Your task to perform on an android device: turn off location Image 0: 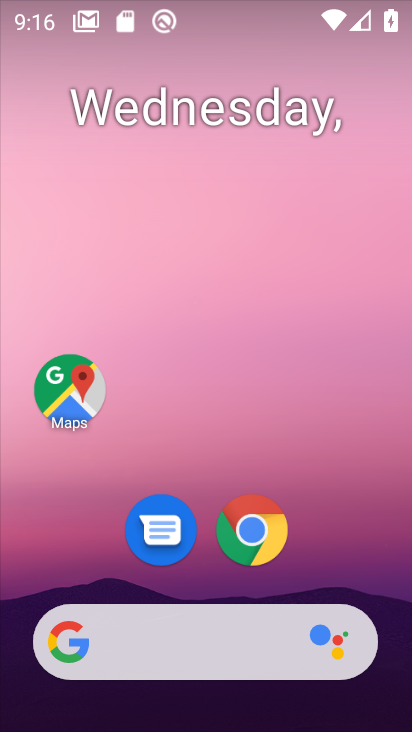
Step 0: drag from (393, 639) to (260, 67)
Your task to perform on an android device: turn off location Image 1: 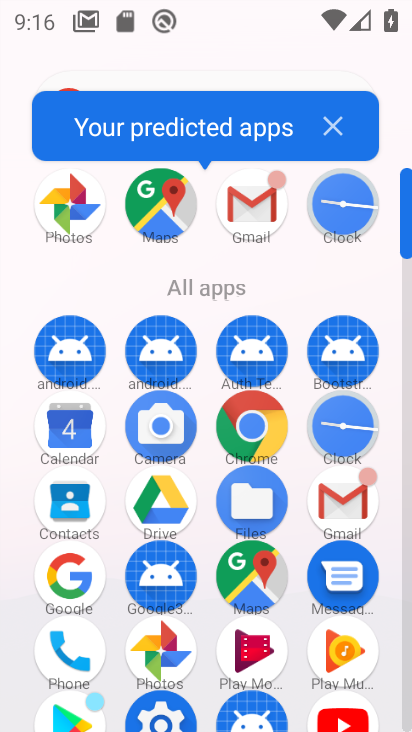
Step 1: click (406, 722)
Your task to perform on an android device: turn off location Image 2: 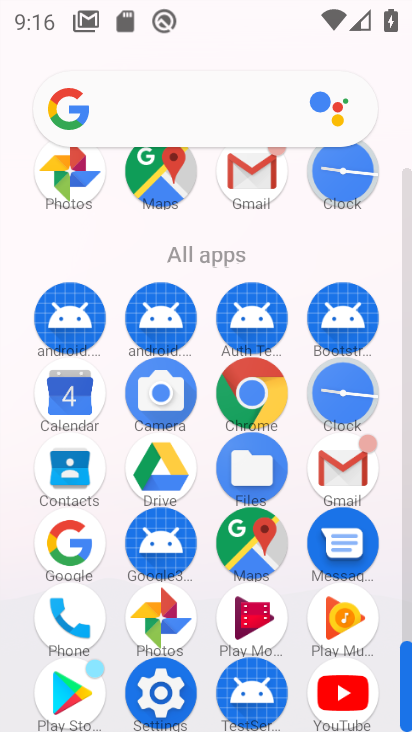
Step 2: click (163, 696)
Your task to perform on an android device: turn off location Image 3: 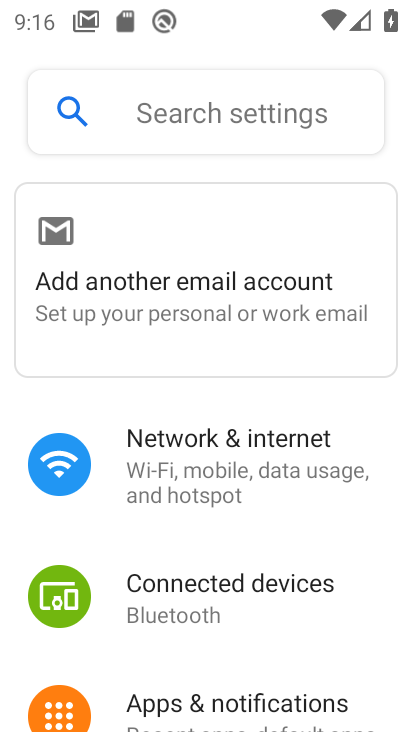
Step 3: drag from (206, 639) to (223, 193)
Your task to perform on an android device: turn off location Image 4: 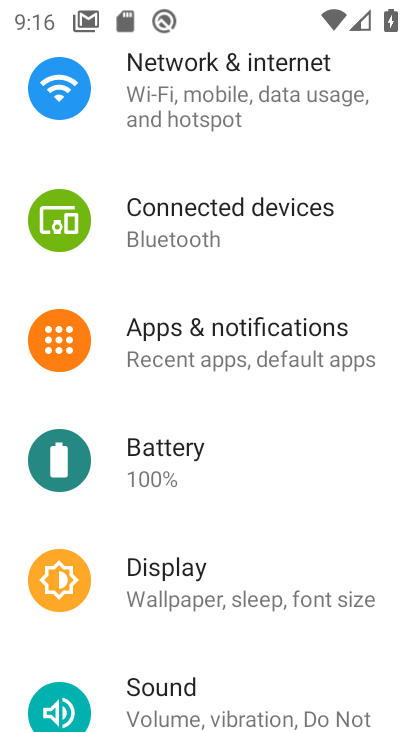
Step 4: drag from (185, 658) to (225, 172)
Your task to perform on an android device: turn off location Image 5: 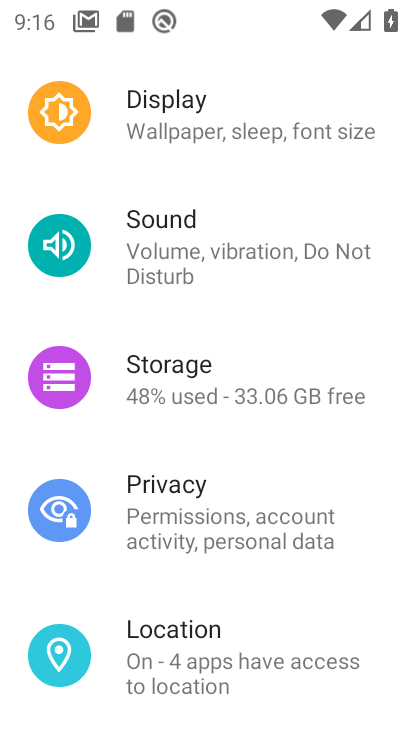
Step 5: click (186, 660)
Your task to perform on an android device: turn off location Image 6: 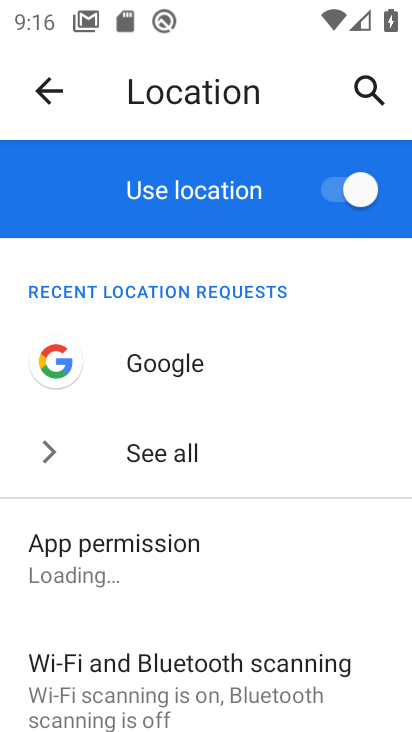
Step 6: click (305, 184)
Your task to perform on an android device: turn off location Image 7: 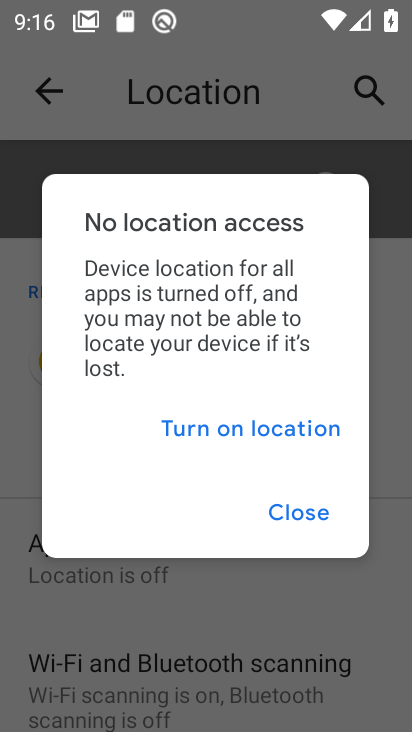
Step 7: task complete